Your task to perform on an android device: turn off improve location accuracy Image 0: 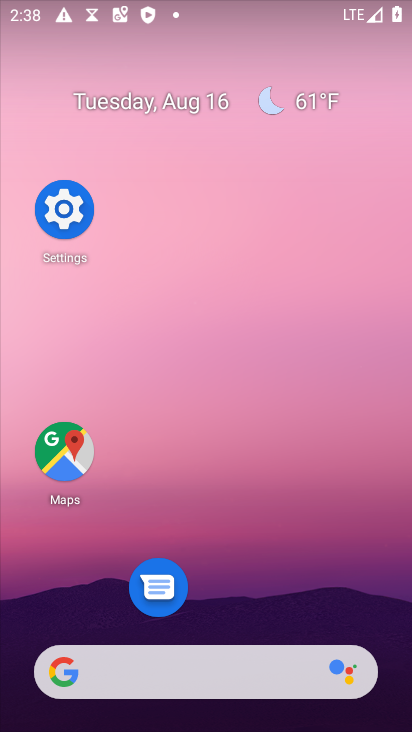
Step 0: drag from (273, 593) to (335, 91)
Your task to perform on an android device: turn off improve location accuracy Image 1: 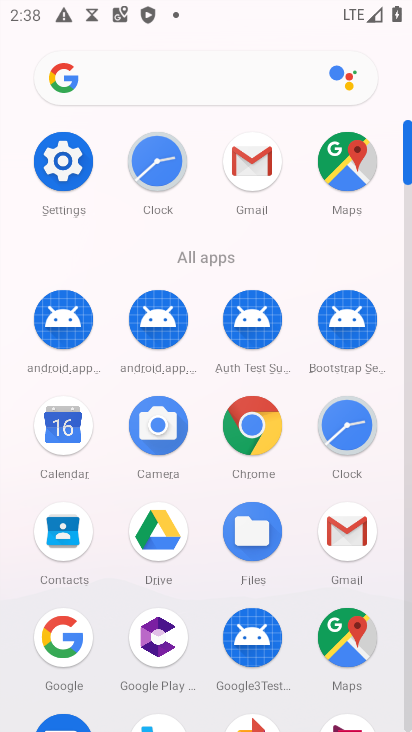
Step 1: click (66, 155)
Your task to perform on an android device: turn off improve location accuracy Image 2: 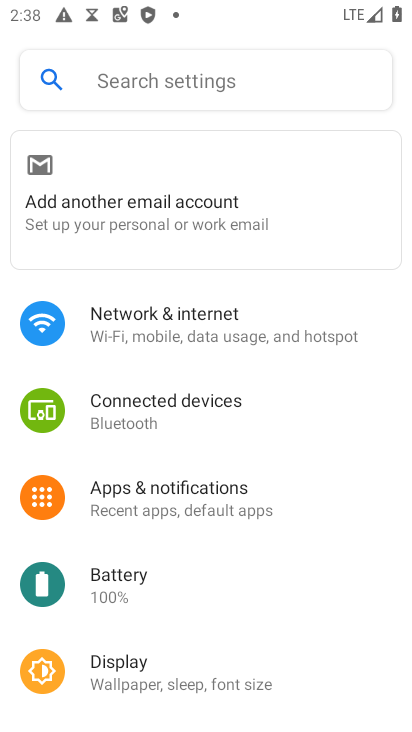
Step 2: drag from (203, 705) to (342, 129)
Your task to perform on an android device: turn off improve location accuracy Image 3: 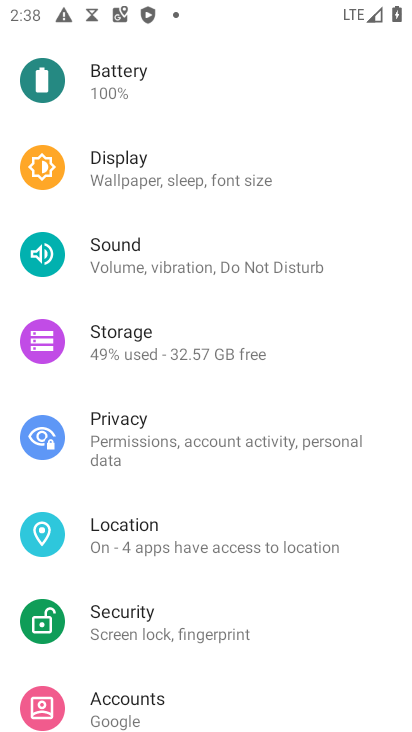
Step 3: click (168, 528)
Your task to perform on an android device: turn off improve location accuracy Image 4: 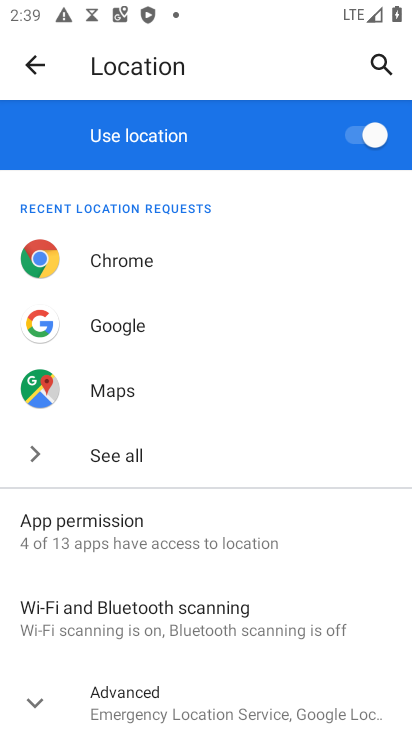
Step 4: click (186, 713)
Your task to perform on an android device: turn off improve location accuracy Image 5: 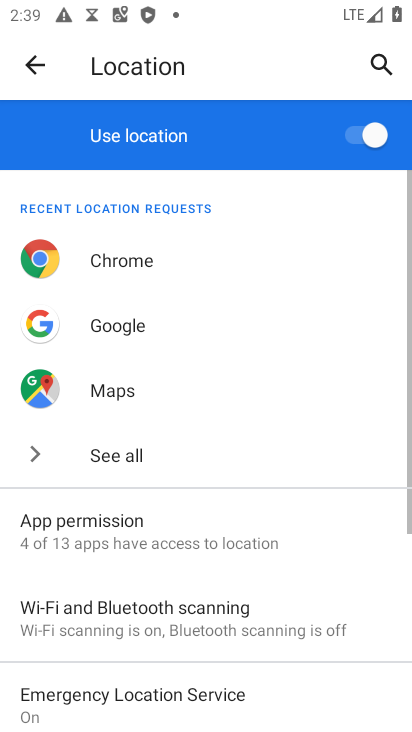
Step 5: drag from (194, 681) to (280, 237)
Your task to perform on an android device: turn off improve location accuracy Image 6: 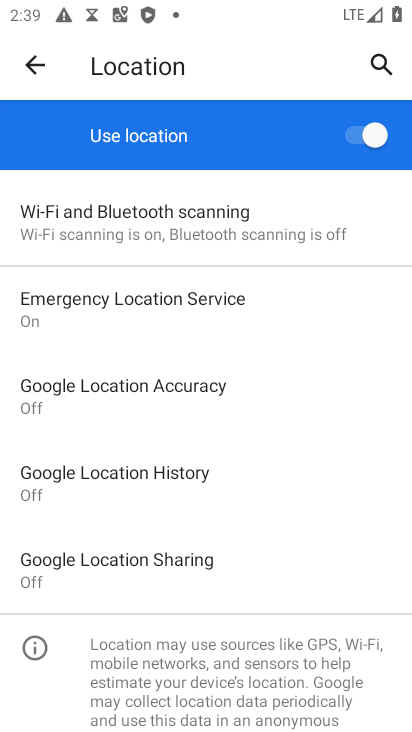
Step 6: click (136, 394)
Your task to perform on an android device: turn off improve location accuracy Image 7: 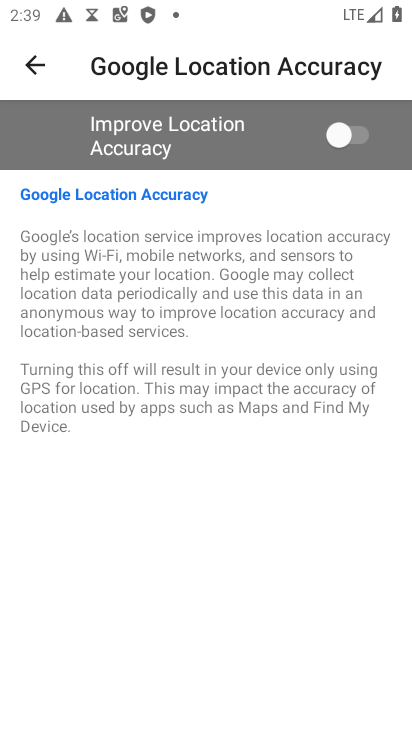
Step 7: task complete